Your task to perform on an android device: Turn off the flashlight Image 0: 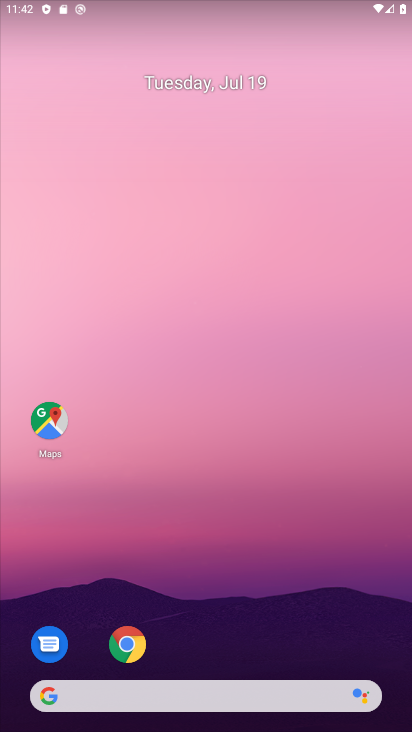
Step 0: task complete